Your task to perform on an android device: When is my next meeting? Image 0: 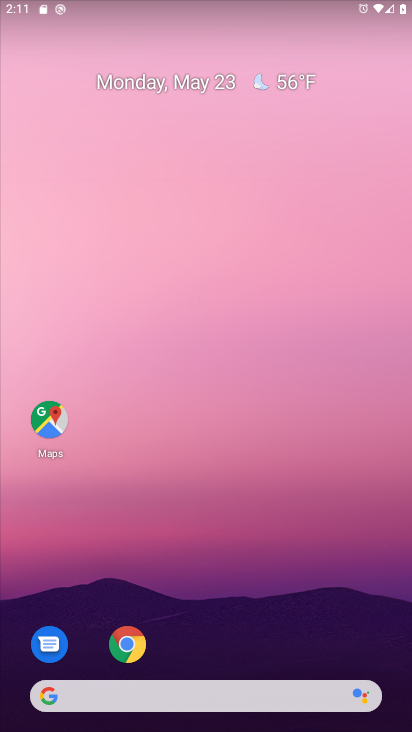
Step 0: drag from (210, 653) to (141, 209)
Your task to perform on an android device: When is my next meeting? Image 1: 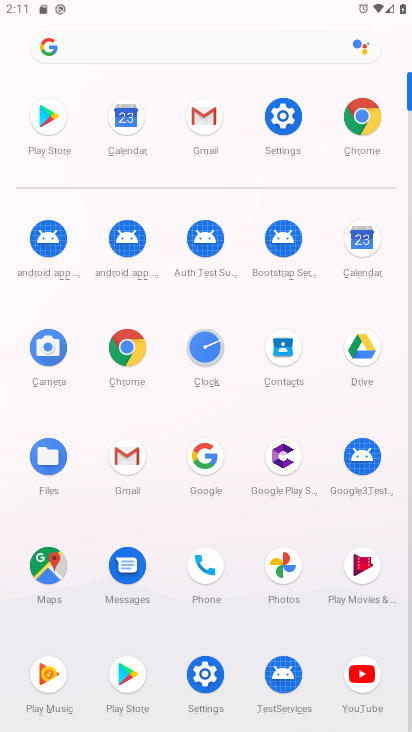
Step 1: drag from (244, 632) to (173, 337)
Your task to perform on an android device: When is my next meeting? Image 2: 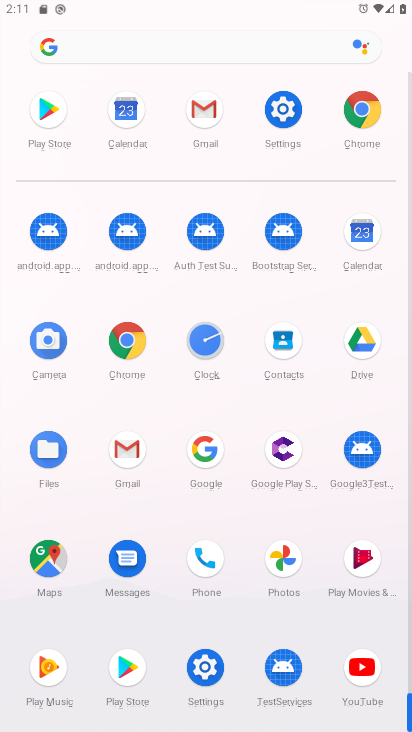
Step 2: click (287, 113)
Your task to perform on an android device: When is my next meeting? Image 3: 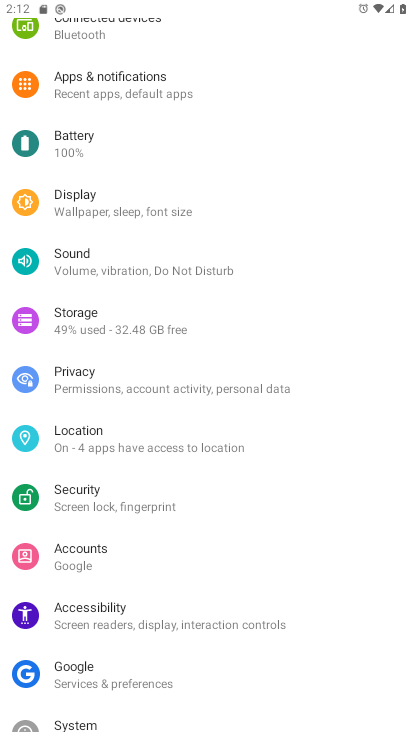
Step 3: press back button
Your task to perform on an android device: When is my next meeting? Image 4: 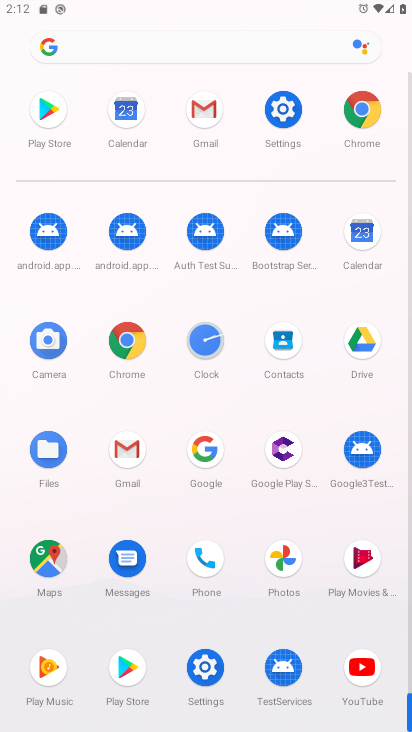
Step 4: click (377, 245)
Your task to perform on an android device: When is my next meeting? Image 5: 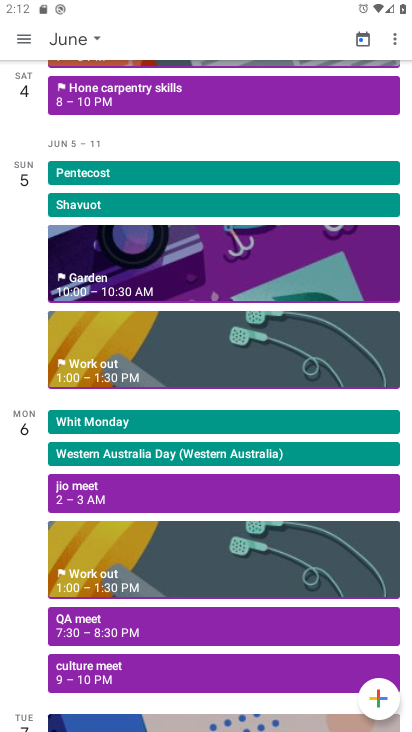
Step 5: task complete